Your task to perform on an android device: Open accessibility settings Image 0: 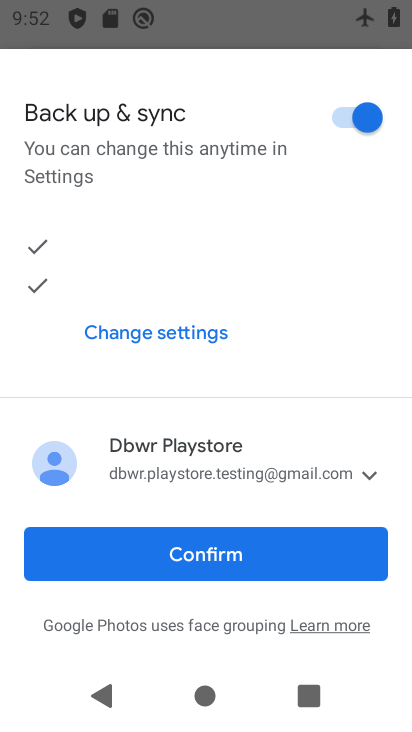
Step 0: press home button
Your task to perform on an android device: Open accessibility settings Image 1: 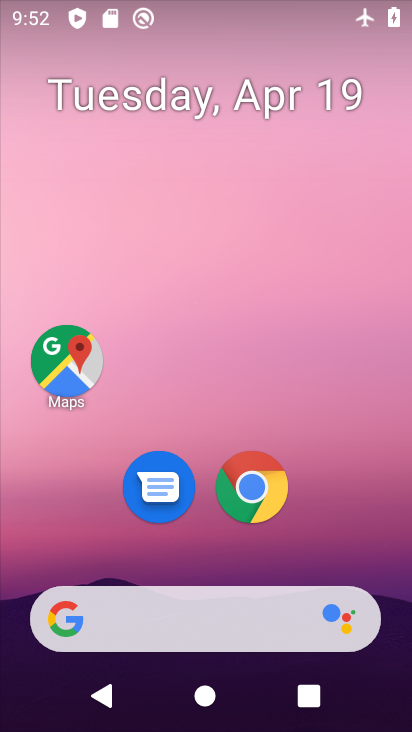
Step 1: drag from (328, 554) to (253, 29)
Your task to perform on an android device: Open accessibility settings Image 2: 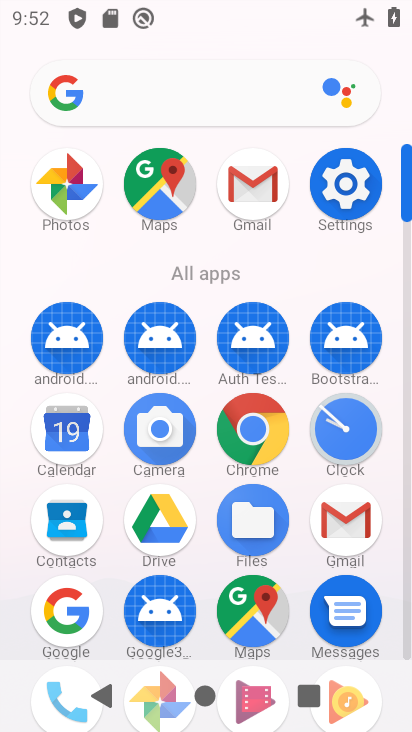
Step 2: click (336, 189)
Your task to perform on an android device: Open accessibility settings Image 3: 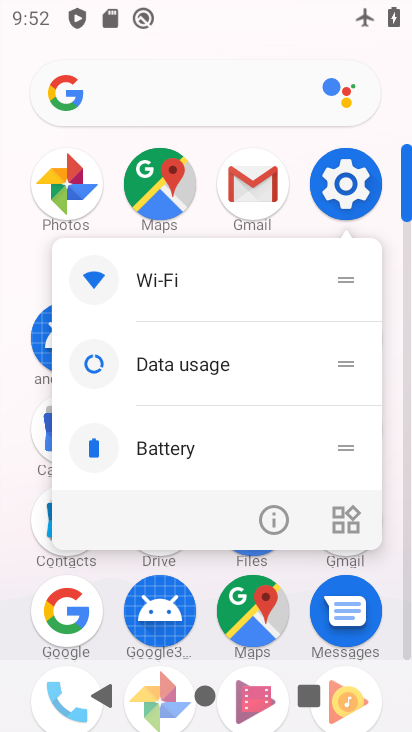
Step 3: click (336, 186)
Your task to perform on an android device: Open accessibility settings Image 4: 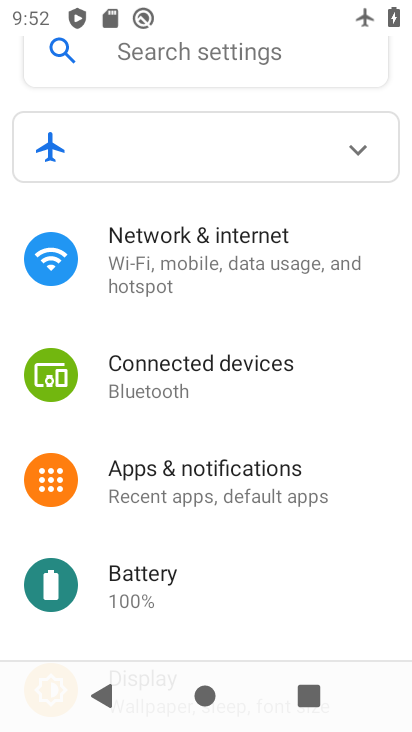
Step 4: drag from (136, 615) to (149, 494)
Your task to perform on an android device: Open accessibility settings Image 5: 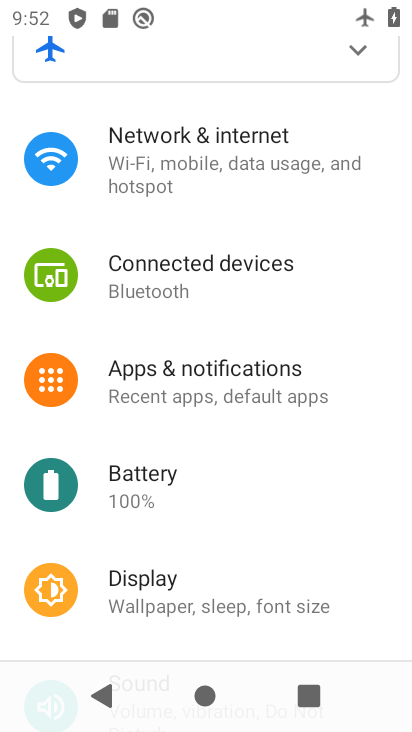
Step 5: drag from (158, 583) to (162, 502)
Your task to perform on an android device: Open accessibility settings Image 6: 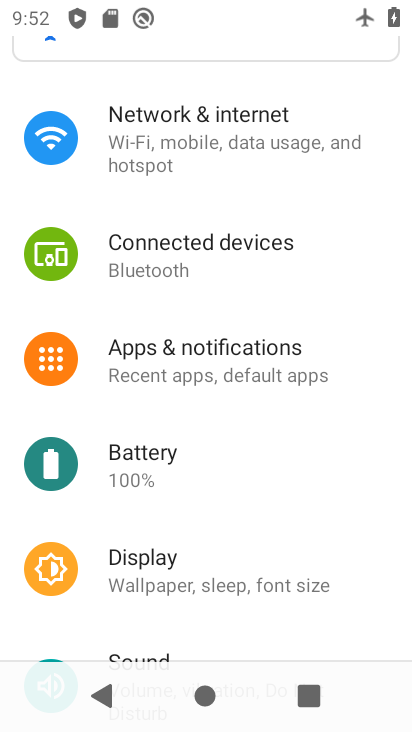
Step 6: drag from (157, 580) to (174, 495)
Your task to perform on an android device: Open accessibility settings Image 7: 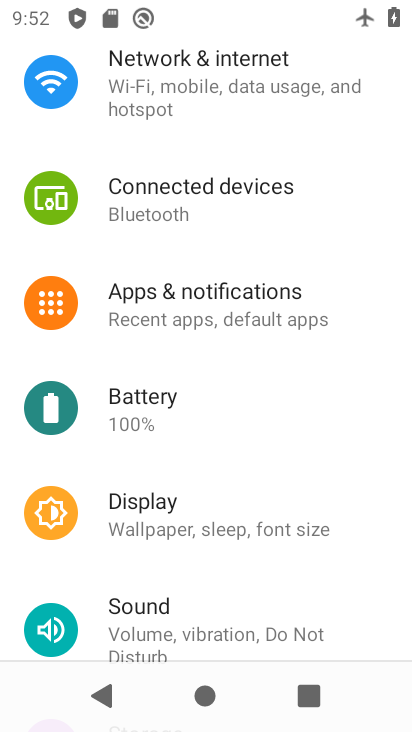
Step 7: drag from (166, 603) to (164, 519)
Your task to perform on an android device: Open accessibility settings Image 8: 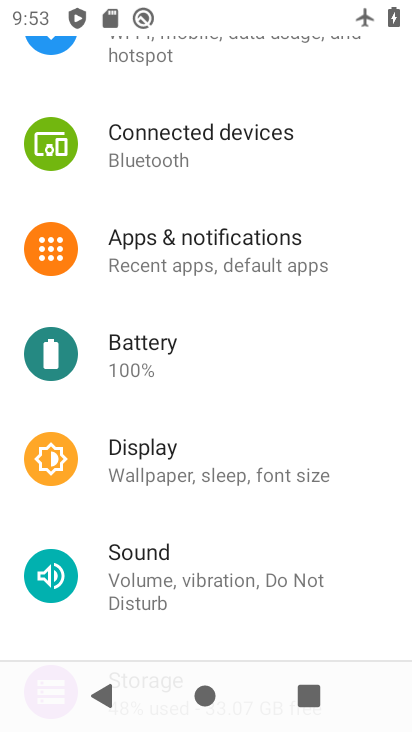
Step 8: drag from (159, 607) to (156, 507)
Your task to perform on an android device: Open accessibility settings Image 9: 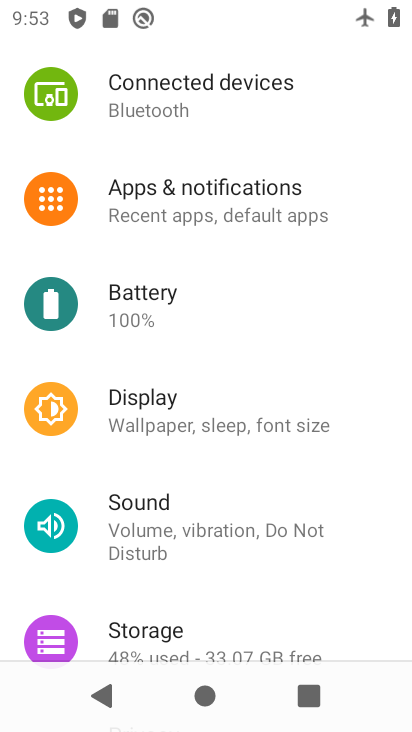
Step 9: drag from (128, 605) to (127, 495)
Your task to perform on an android device: Open accessibility settings Image 10: 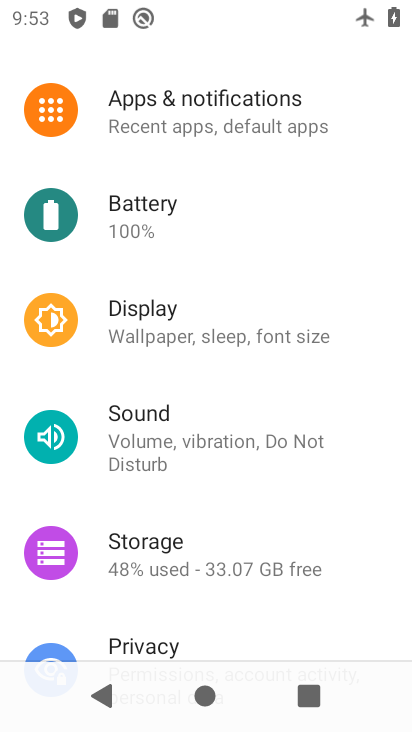
Step 10: drag from (117, 580) to (122, 505)
Your task to perform on an android device: Open accessibility settings Image 11: 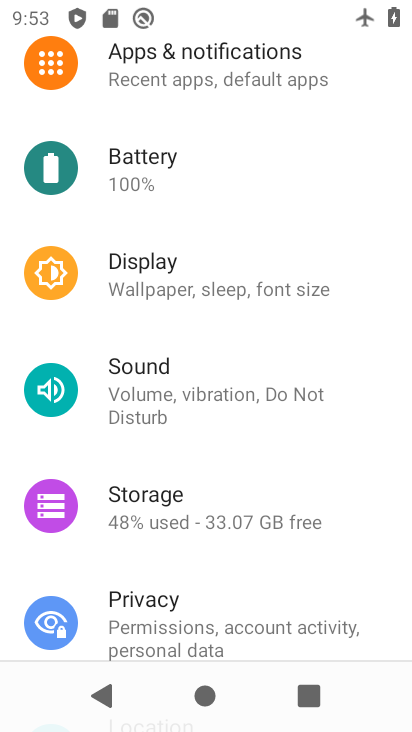
Step 11: drag from (80, 609) to (80, 562)
Your task to perform on an android device: Open accessibility settings Image 12: 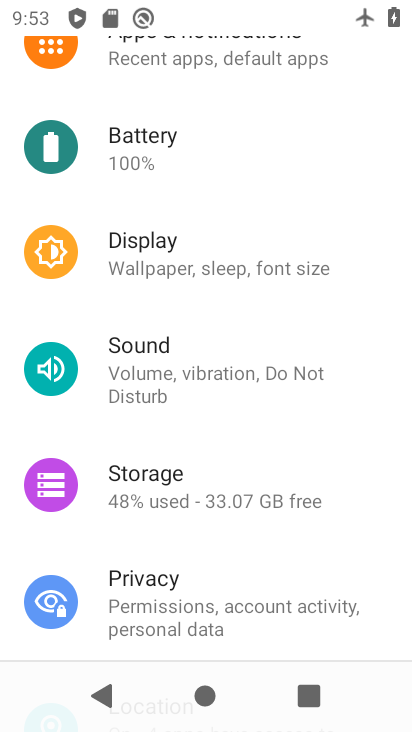
Step 12: drag from (84, 613) to (86, 554)
Your task to perform on an android device: Open accessibility settings Image 13: 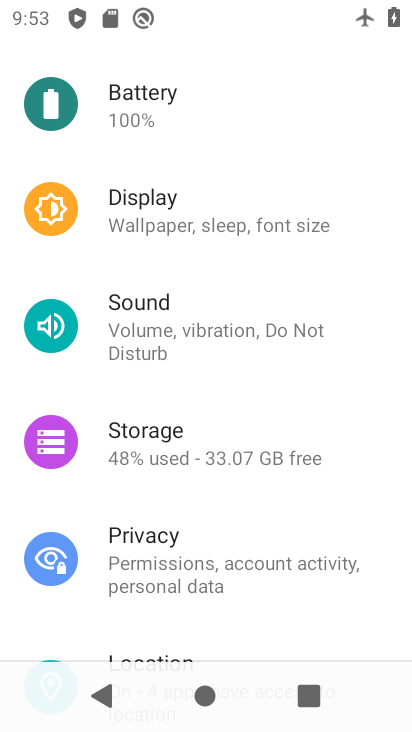
Step 13: drag from (96, 616) to (97, 566)
Your task to perform on an android device: Open accessibility settings Image 14: 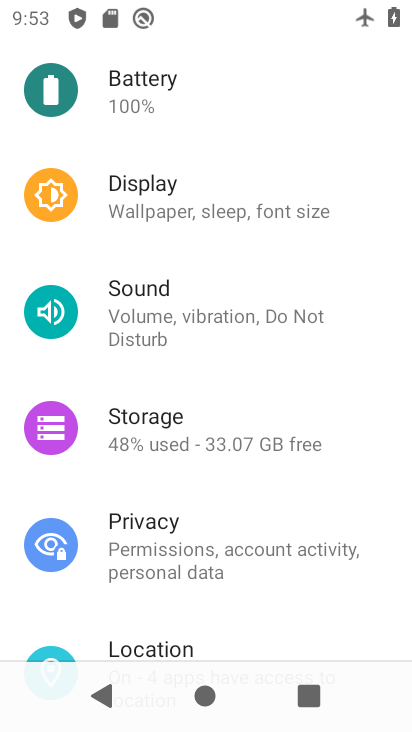
Step 14: drag from (99, 608) to (100, 551)
Your task to perform on an android device: Open accessibility settings Image 15: 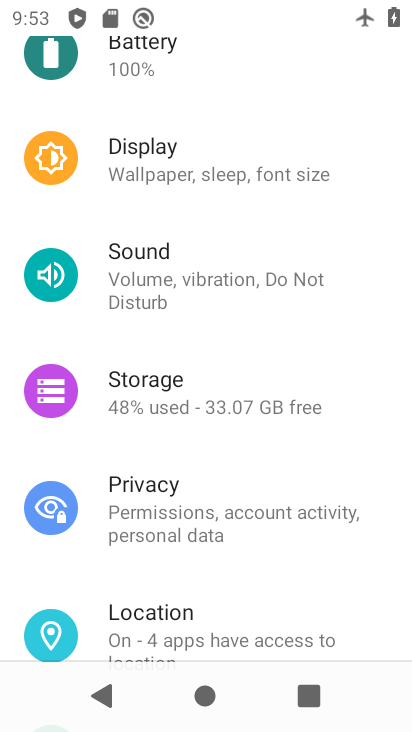
Step 15: drag from (101, 602) to (101, 559)
Your task to perform on an android device: Open accessibility settings Image 16: 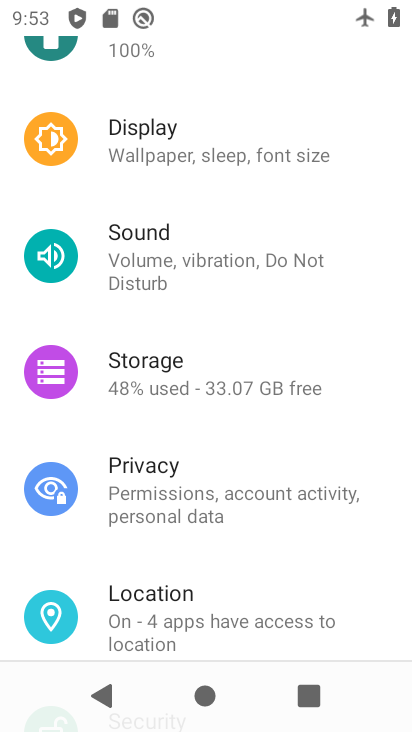
Step 16: drag from (109, 619) to (129, 558)
Your task to perform on an android device: Open accessibility settings Image 17: 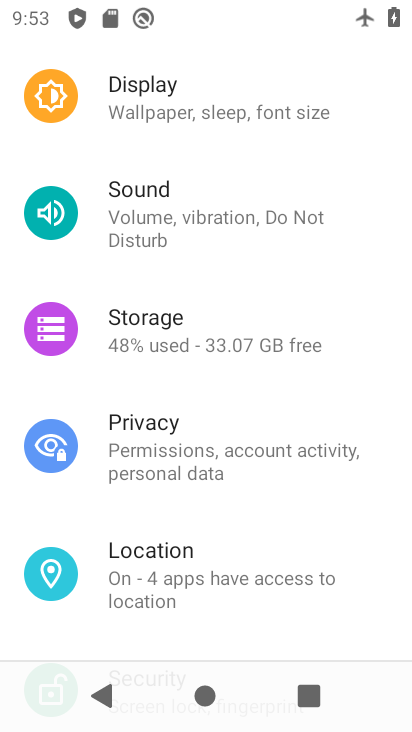
Step 17: drag from (127, 612) to (132, 548)
Your task to perform on an android device: Open accessibility settings Image 18: 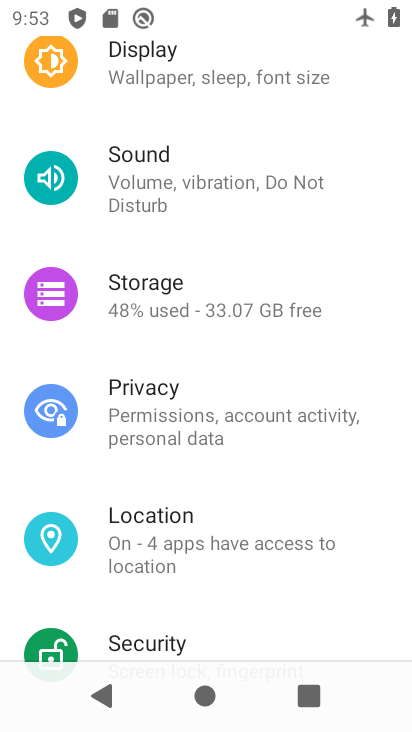
Step 18: drag from (133, 608) to (130, 542)
Your task to perform on an android device: Open accessibility settings Image 19: 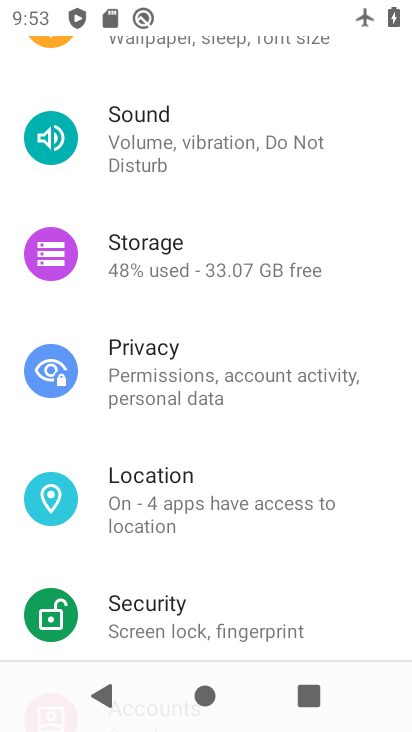
Step 19: drag from (130, 603) to (129, 543)
Your task to perform on an android device: Open accessibility settings Image 20: 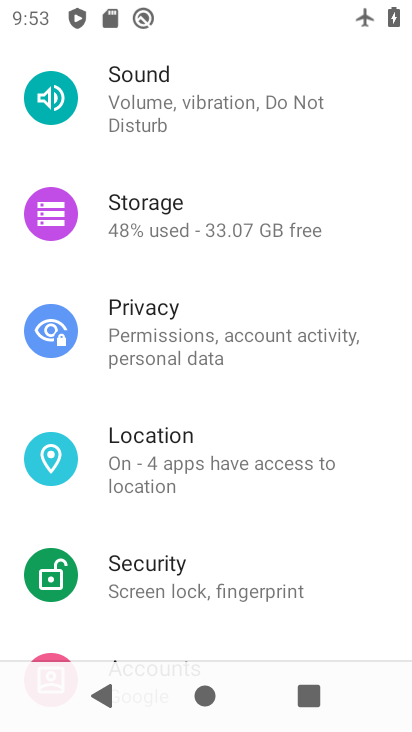
Step 20: drag from (130, 602) to (134, 533)
Your task to perform on an android device: Open accessibility settings Image 21: 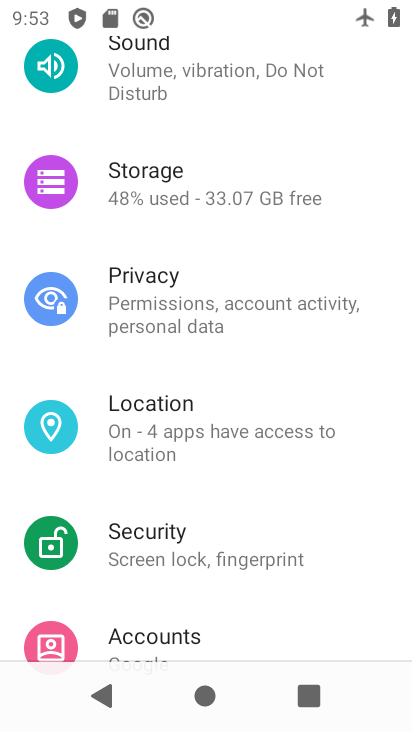
Step 21: drag from (120, 601) to (120, 542)
Your task to perform on an android device: Open accessibility settings Image 22: 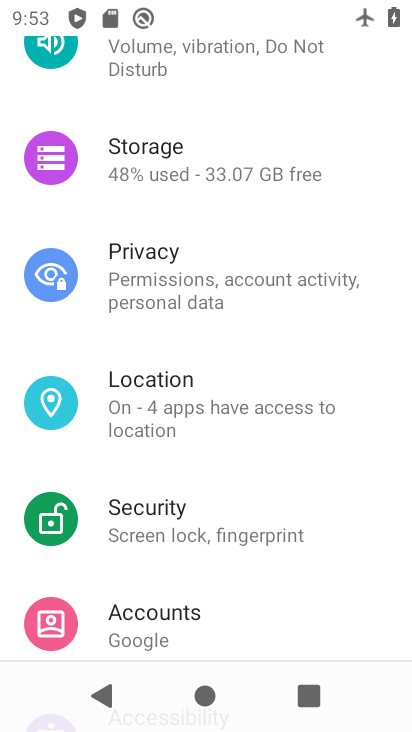
Step 22: drag from (122, 636) to (129, 559)
Your task to perform on an android device: Open accessibility settings Image 23: 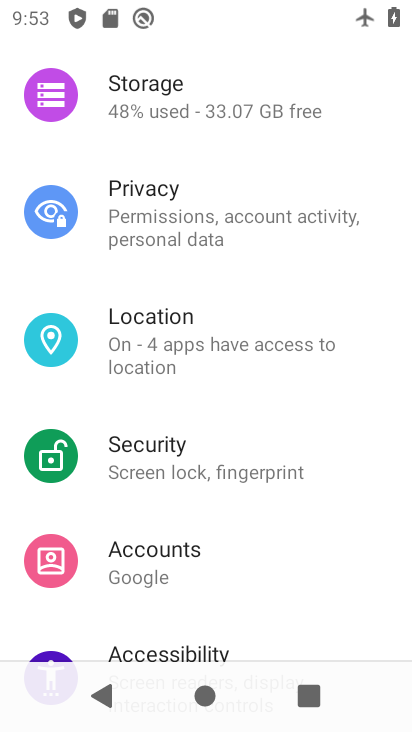
Step 23: drag from (134, 627) to (138, 555)
Your task to perform on an android device: Open accessibility settings Image 24: 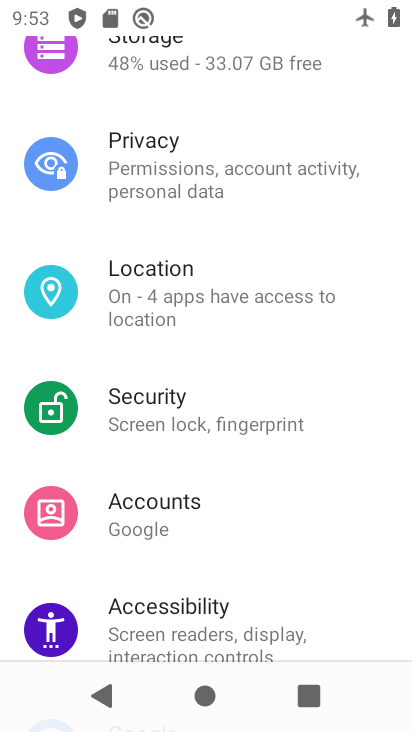
Step 24: click (152, 610)
Your task to perform on an android device: Open accessibility settings Image 25: 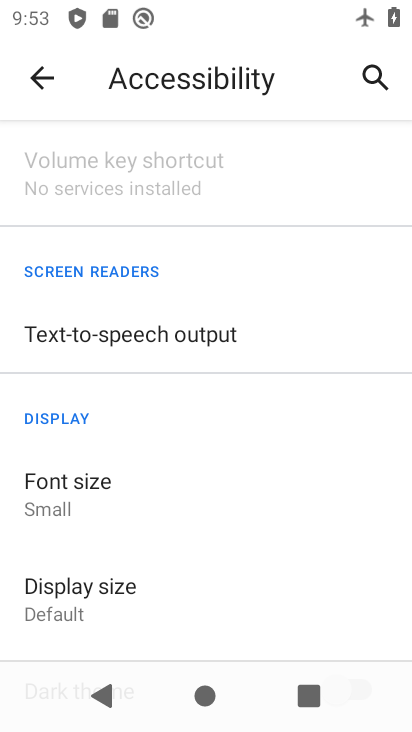
Step 25: task complete